Your task to perform on an android device: toggle wifi Image 0: 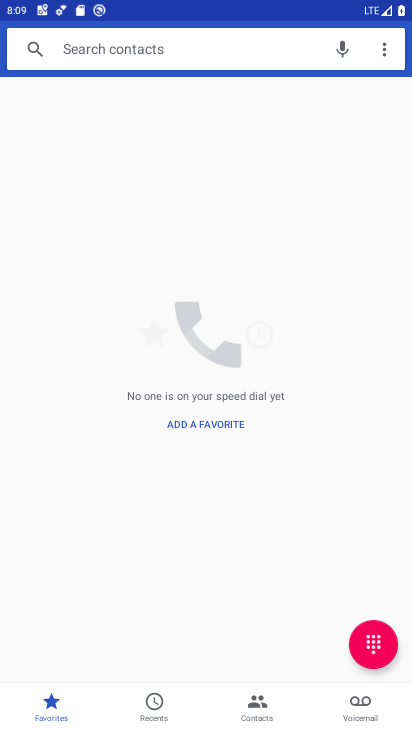
Step 0: press back button
Your task to perform on an android device: toggle wifi Image 1: 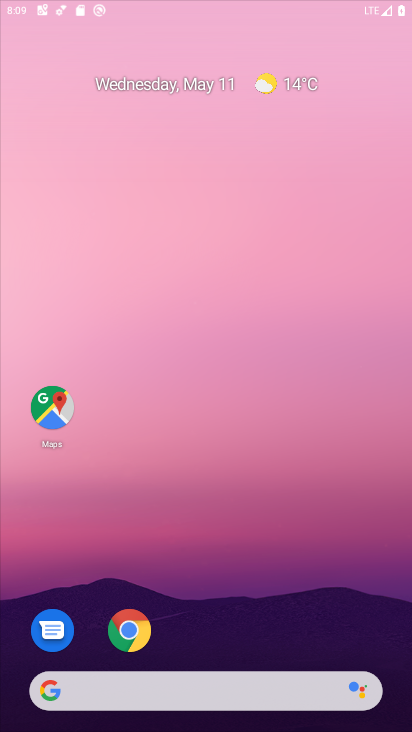
Step 1: drag from (132, 1) to (160, 590)
Your task to perform on an android device: toggle wifi Image 2: 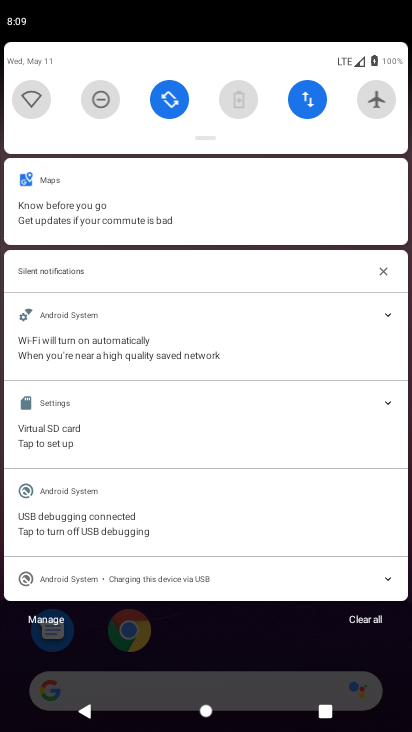
Step 2: click (28, 100)
Your task to perform on an android device: toggle wifi Image 3: 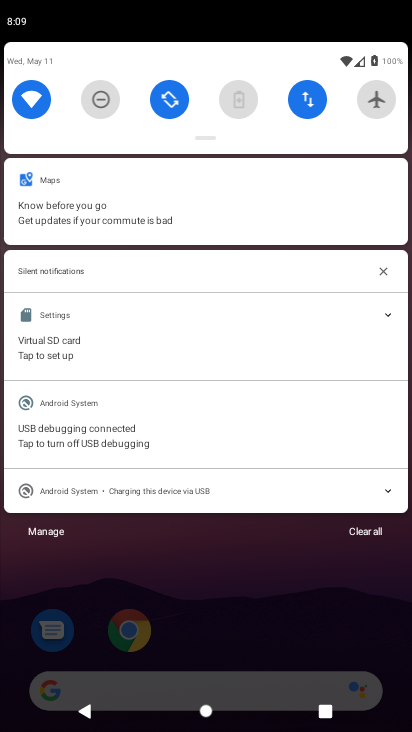
Step 3: task complete